Your task to perform on an android device: turn notification dots on Image 0: 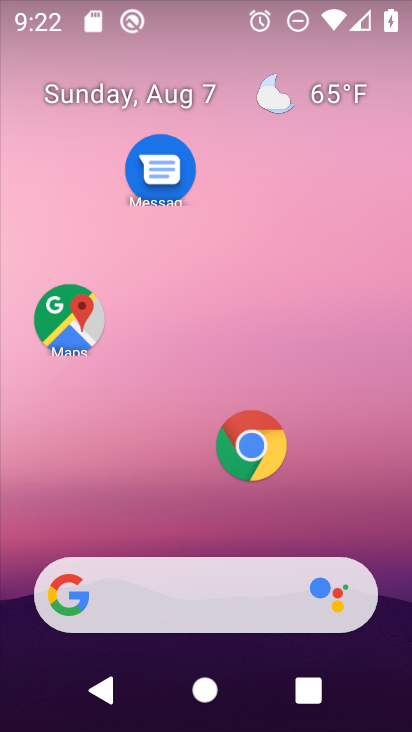
Step 0: drag from (187, 532) to (184, 112)
Your task to perform on an android device: turn notification dots on Image 1: 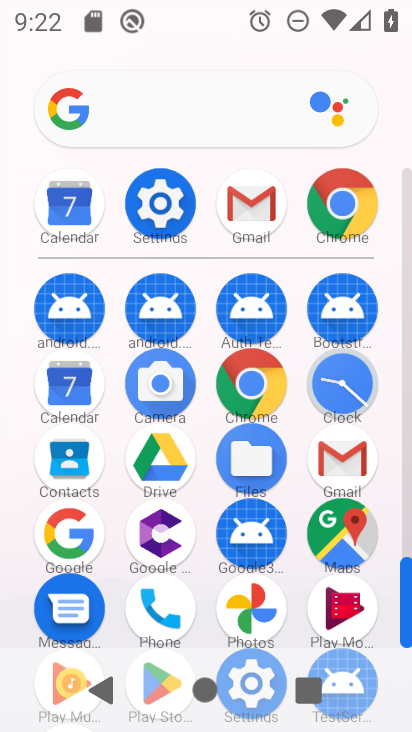
Step 1: click (156, 196)
Your task to perform on an android device: turn notification dots on Image 2: 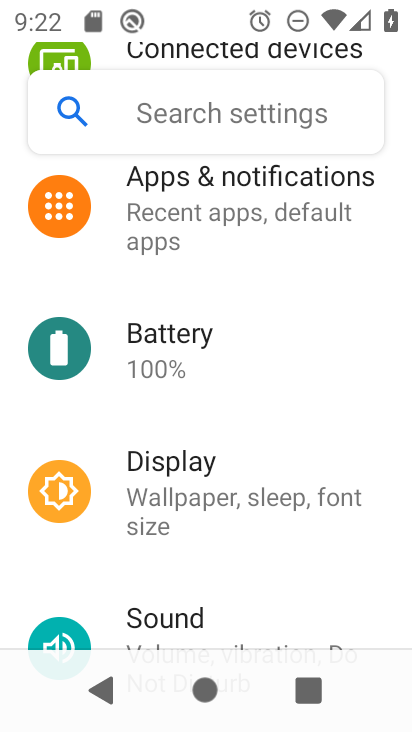
Step 2: click (193, 236)
Your task to perform on an android device: turn notification dots on Image 3: 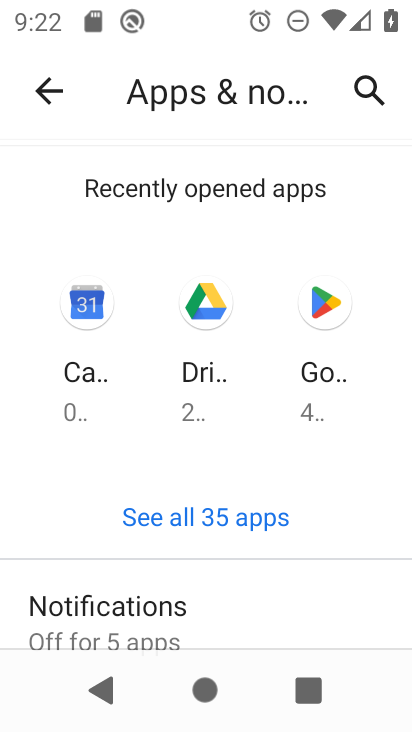
Step 3: click (204, 617)
Your task to perform on an android device: turn notification dots on Image 4: 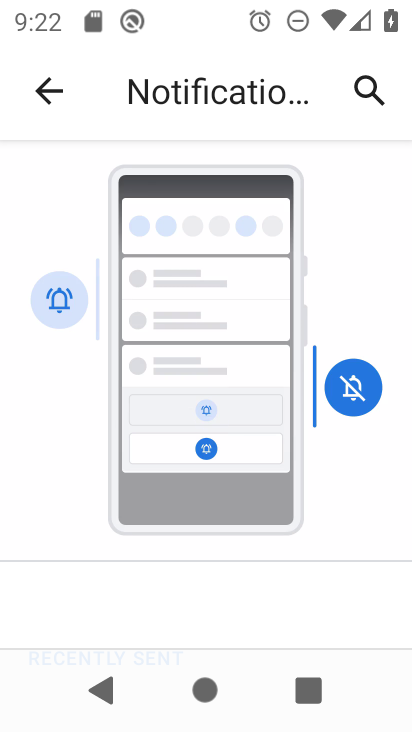
Step 4: drag from (192, 592) to (211, 168)
Your task to perform on an android device: turn notification dots on Image 5: 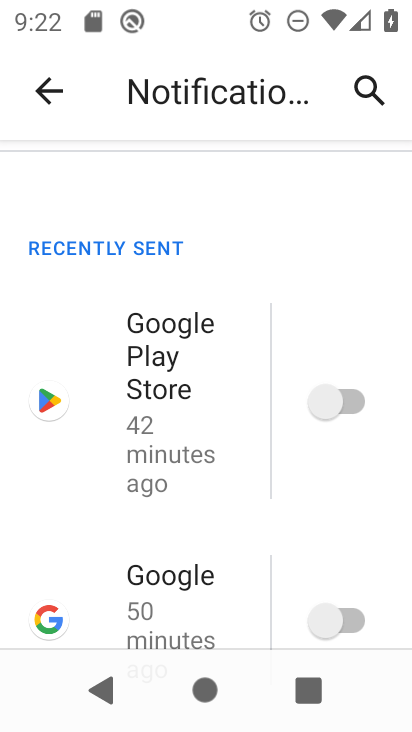
Step 5: drag from (240, 518) to (272, 142)
Your task to perform on an android device: turn notification dots on Image 6: 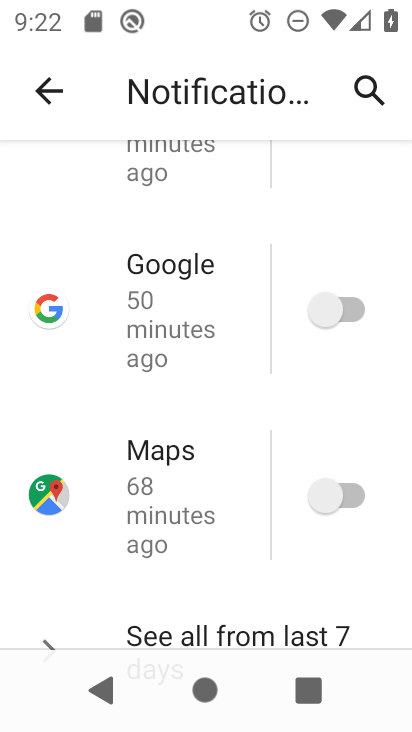
Step 6: drag from (255, 602) to (268, 152)
Your task to perform on an android device: turn notification dots on Image 7: 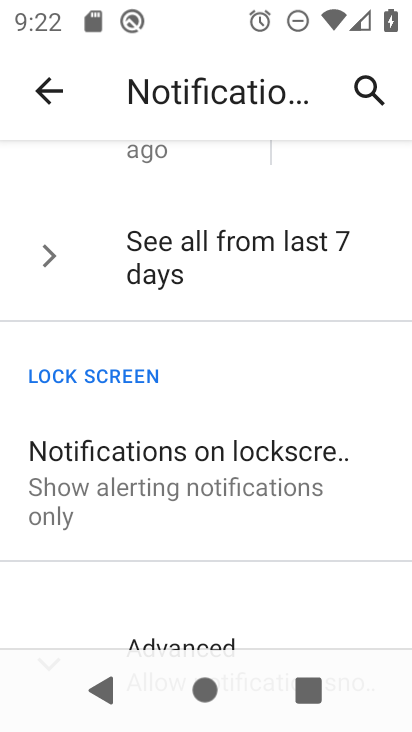
Step 7: drag from (168, 590) to (191, 281)
Your task to perform on an android device: turn notification dots on Image 8: 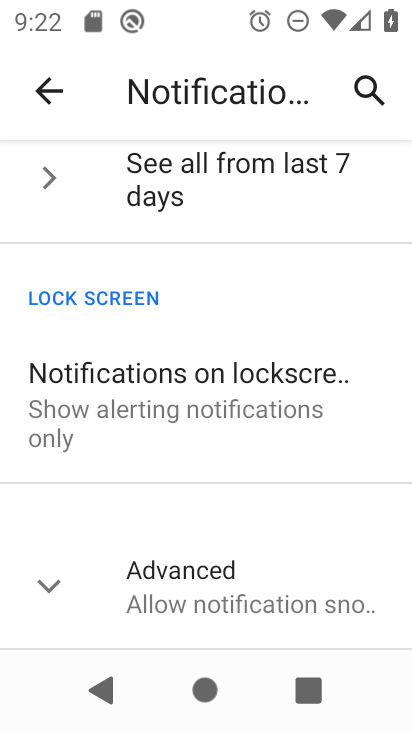
Step 8: click (44, 577)
Your task to perform on an android device: turn notification dots on Image 9: 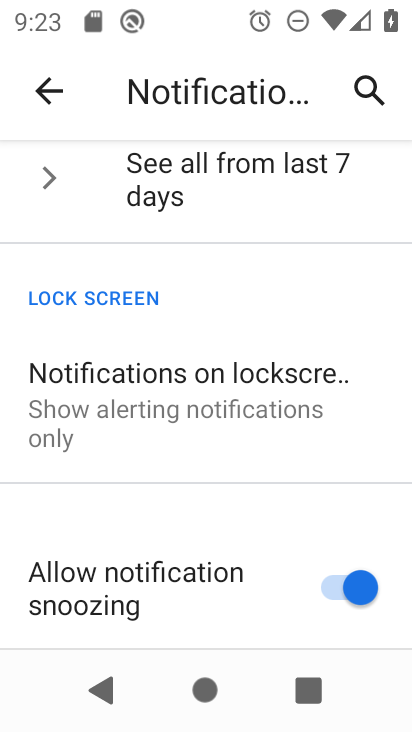
Step 9: task complete